Your task to perform on an android device: find which apps use the phone's location Image 0: 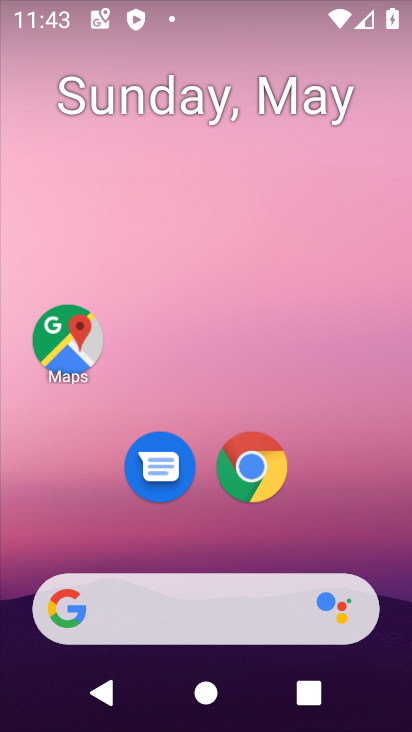
Step 0: drag from (409, 549) to (330, 23)
Your task to perform on an android device: find which apps use the phone's location Image 1: 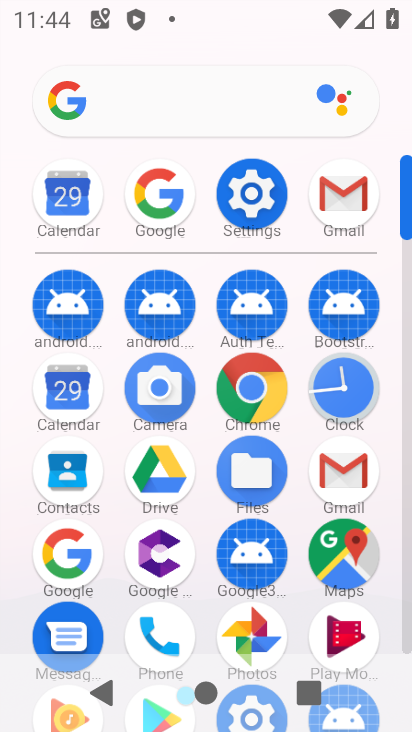
Step 1: click (270, 175)
Your task to perform on an android device: find which apps use the phone's location Image 2: 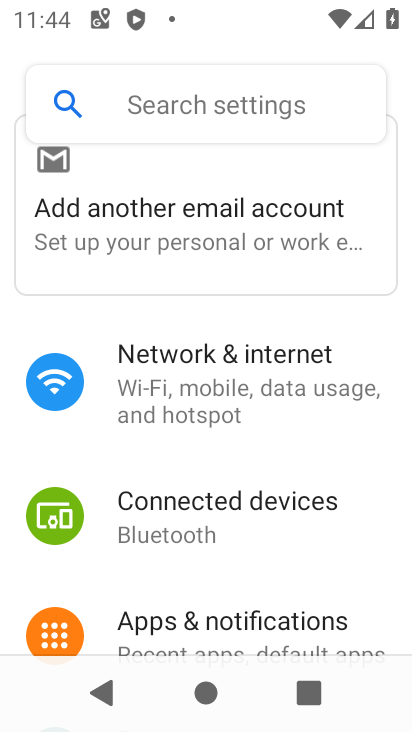
Step 2: drag from (187, 589) to (302, 155)
Your task to perform on an android device: find which apps use the phone's location Image 3: 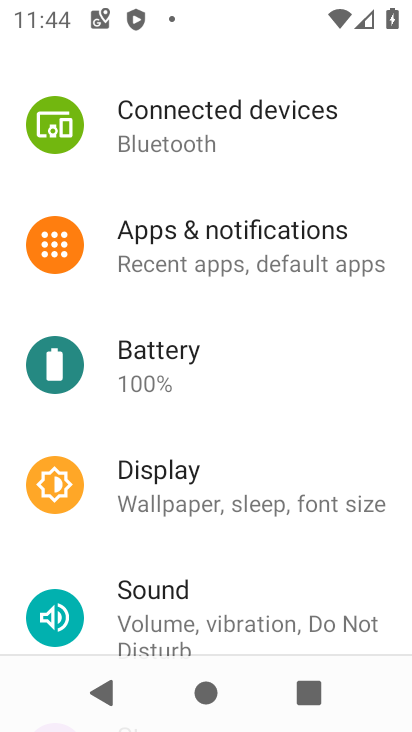
Step 3: drag from (193, 606) to (244, 108)
Your task to perform on an android device: find which apps use the phone's location Image 4: 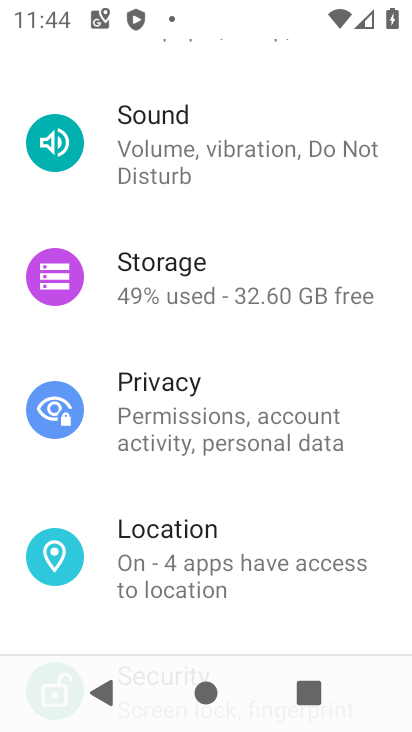
Step 4: click (166, 557)
Your task to perform on an android device: find which apps use the phone's location Image 5: 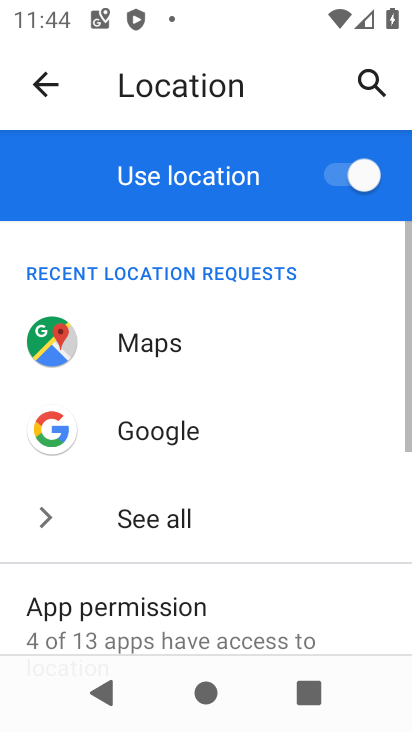
Step 5: drag from (145, 620) to (206, 220)
Your task to perform on an android device: find which apps use the phone's location Image 6: 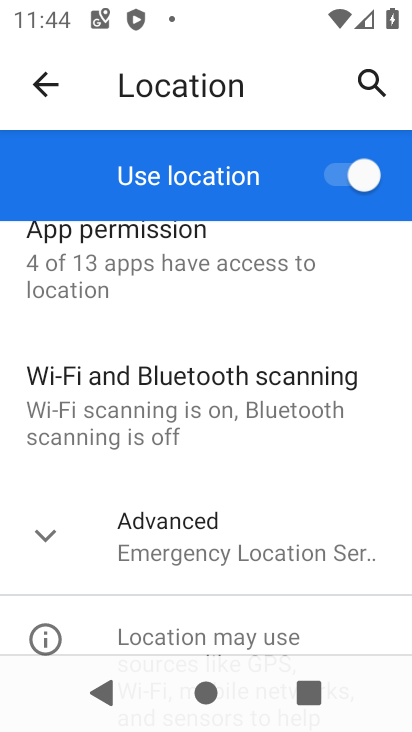
Step 6: drag from (179, 307) to (197, 676)
Your task to perform on an android device: find which apps use the phone's location Image 7: 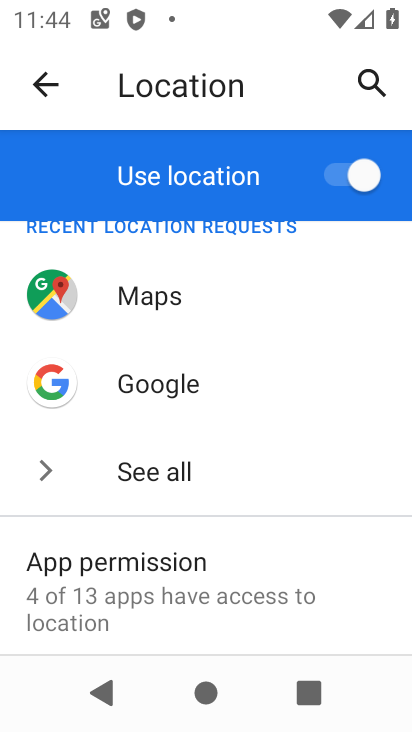
Step 7: click (122, 596)
Your task to perform on an android device: find which apps use the phone's location Image 8: 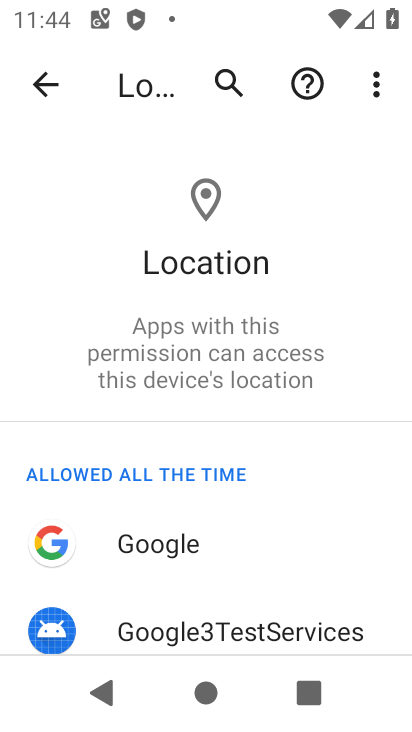
Step 8: drag from (186, 610) to (277, 111)
Your task to perform on an android device: find which apps use the phone's location Image 9: 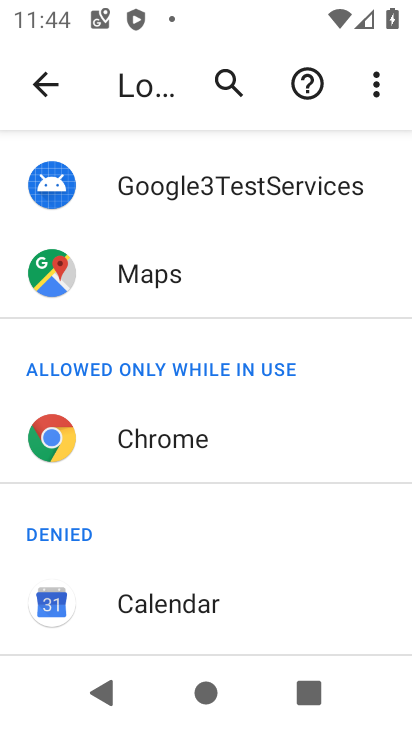
Step 9: drag from (197, 558) to (238, 100)
Your task to perform on an android device: find which apps use the phone's location Image 10: 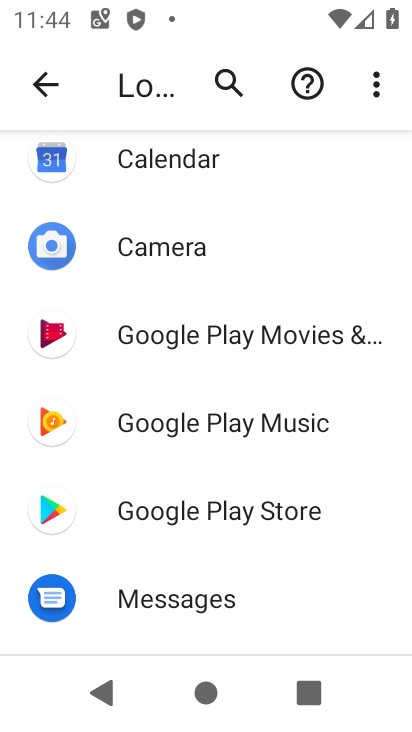
Step 10: drag from (128, 535) to (190, 108)
Your task to perform on an android device: find which apps use the phone's location Image 11: 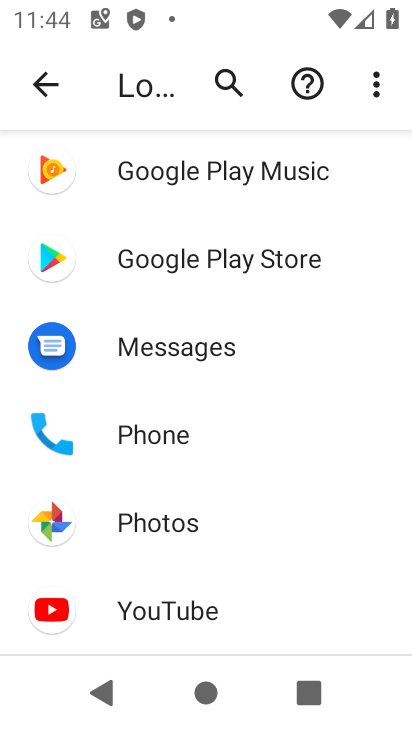
Step 11: click (175, 442)
Your task to perform on an android device: find which apps use the phone's location Image 12: 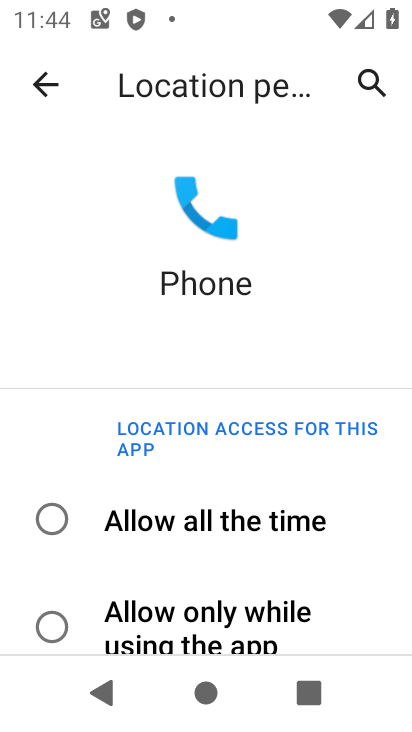
Step 12: task complete